Your task to perform on an android device: turn on the 12-hour format for clock Image 0: 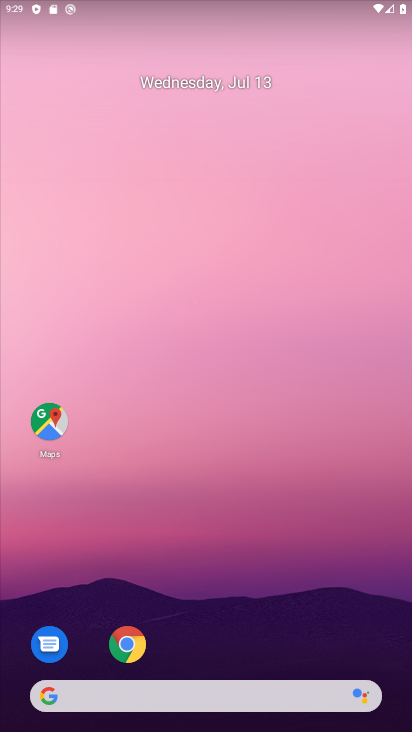
Step 0: drag from (202, 659) to (300, 115)
Your task to perform on an android device: turn on the 12-hour format for clock Image 1: 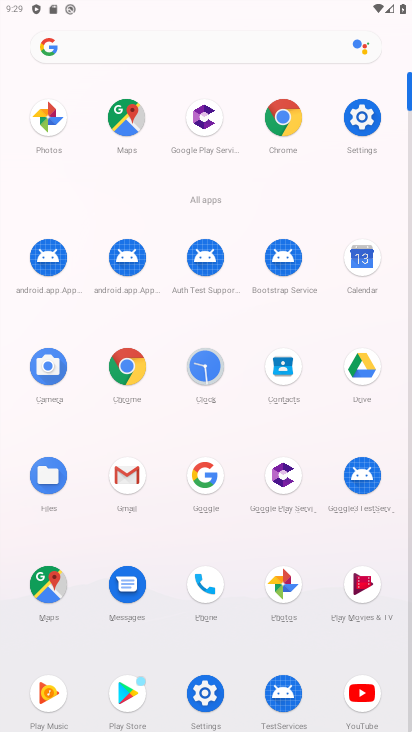
Step 1: click (202, 376)
Your task to perform on an android device: turn on the 12-hour format for clock Image 2: 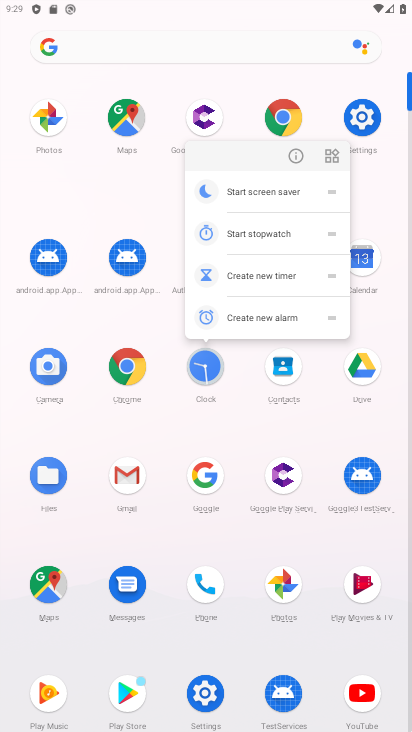
Step 2: click (203, 372)
Your task to perform on an android device: turn on the 12-hour format for clock Image 3: 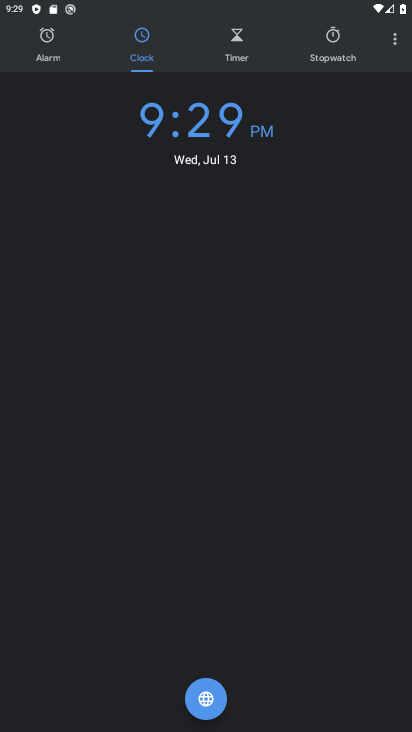
Step 3: click (391, 38)
Your task to perform on an android device: turn on the 12-hour format for clock Image 4: 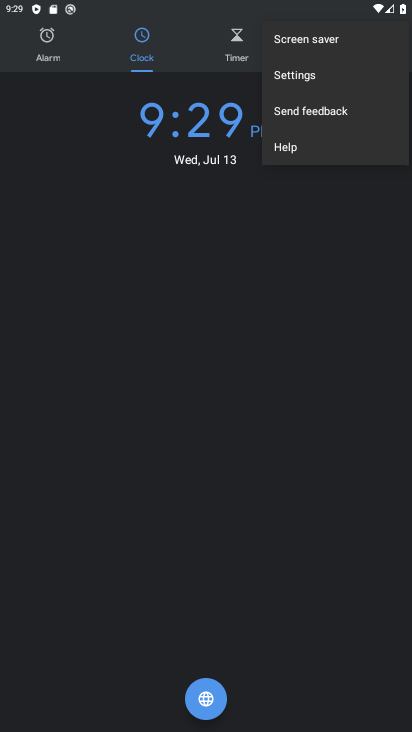
Step 4: click (351, 78)
Your task to perform on an android device: turn on the 12-hour format for clock Image 5: 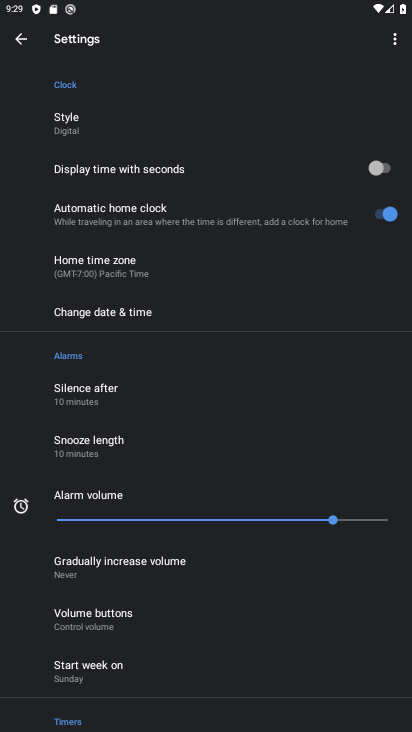
Step 5: click (170, 306)
Your task to perform on an android device: turn on the 12-hour format for clock Image 6: 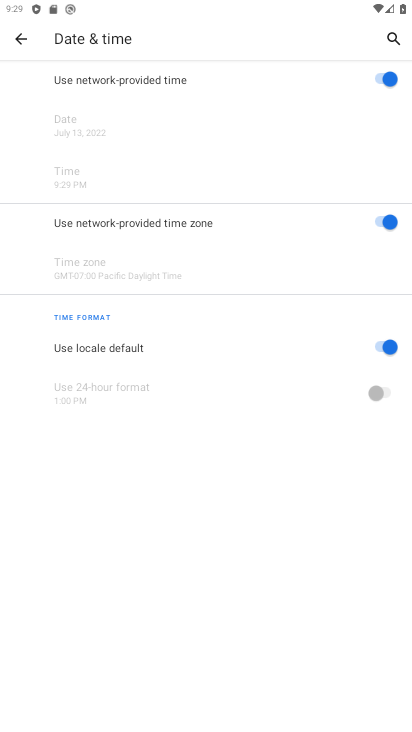
Step 6: task complete